Your task to perform on an android device: change the clock display to digital Image 0: 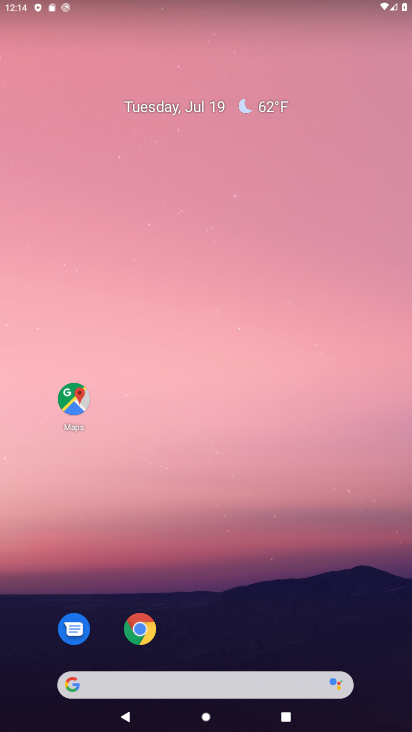
Step 0: drag from (209, 653) to (178, 19)
Your task to perform on an android device: change the clock display to digital Image 1: 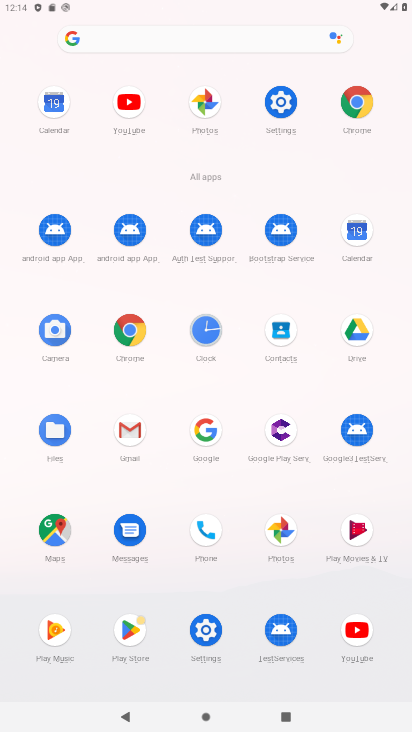
Step 1: click (214, 324)
Your task to perform on an android device: change the clock display to digital Image 2: 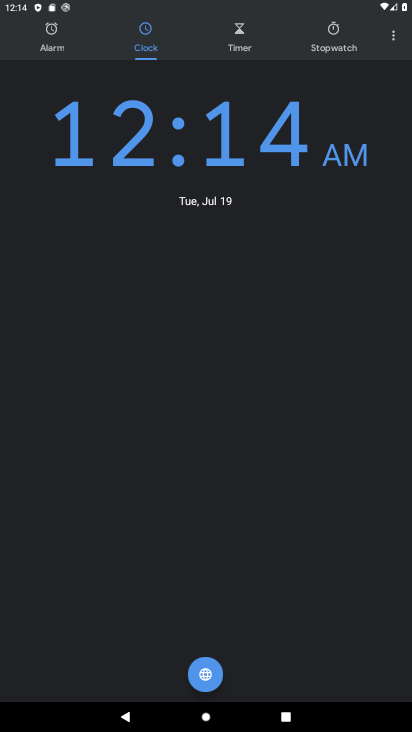
Step 2: click (395, 40)
Your task to perform on an android device: change the clock display to digital Image 3: 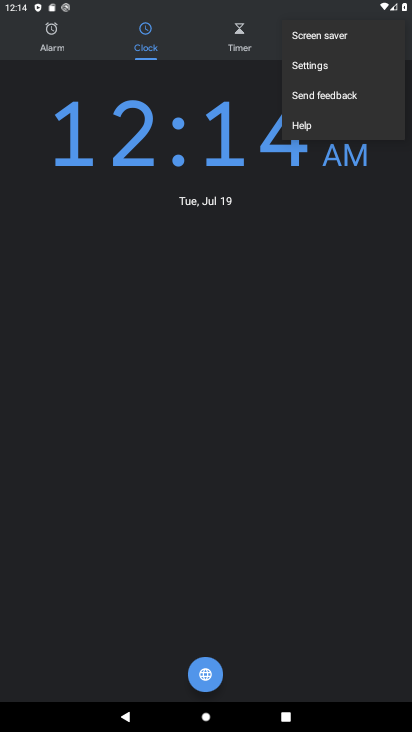
Step 3: click (299, 76)
Your task to perform on an android device: change the clock display to digital Image 4: 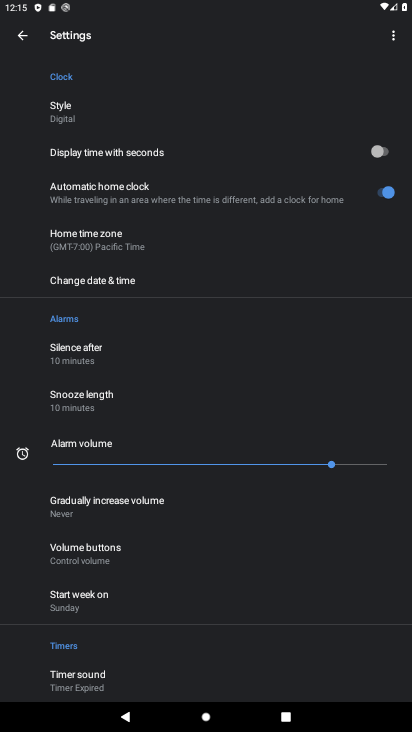
Step 4: click (63, 113)
Your task to perform on an android device: change the clock display to digital Image 5: 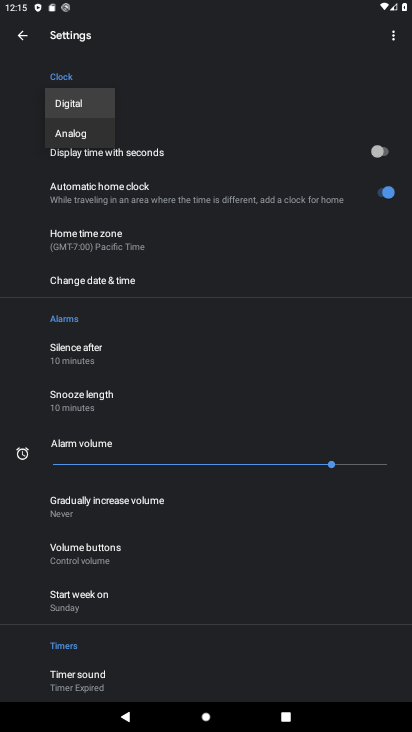
Step 5: click (67, 102)
Your task to perform on an android device: change the clock display to digital Image 6: 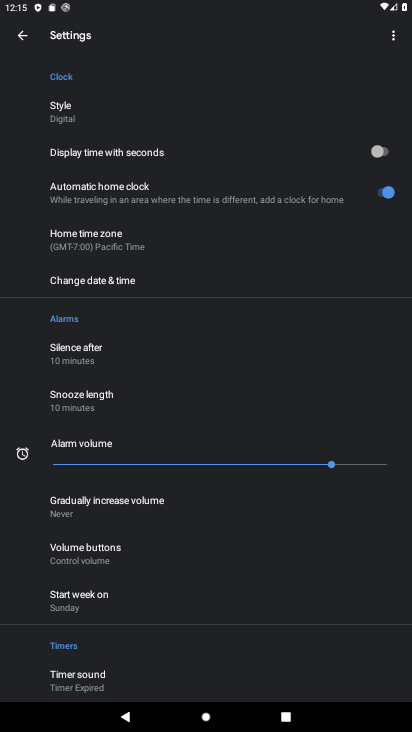
Step 6: task complete